Your task to perform on an android device: Search for vegetarian restaurants on Maps Image 0: 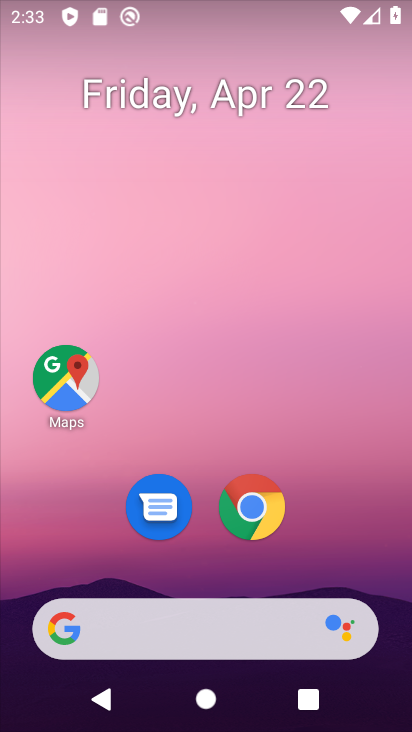
Step 0: drag from (118, 598) to (222, 46)
Your task to perform on an android device: Search for vegetarian restaurants on Maps Image 1: 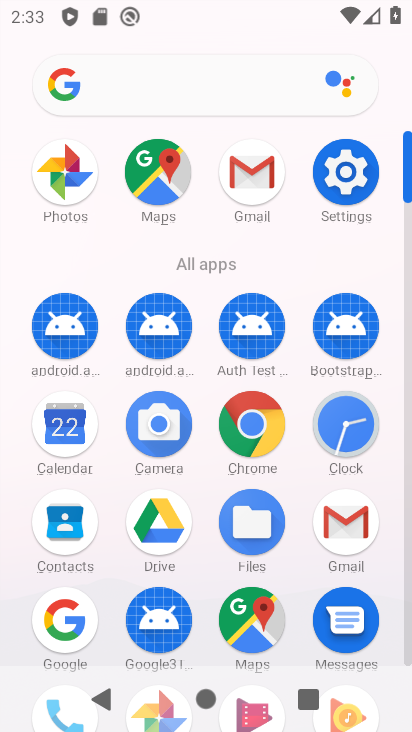
Step 1: click (270, 623)
Your task to perform on an android device: Search for vegetarian restaurants on Maps Image 2: 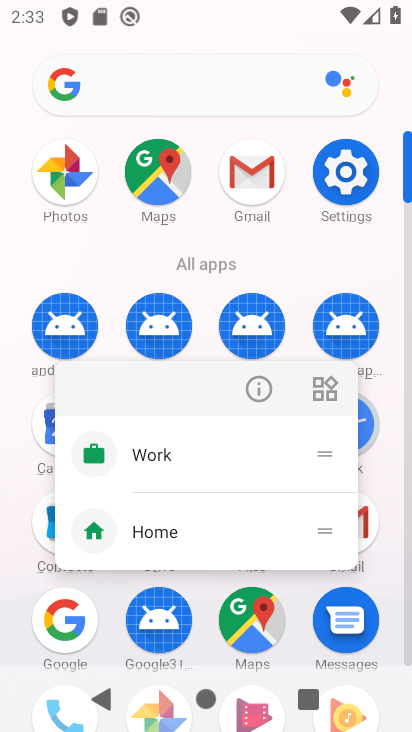
Step 2: click (232, 626)
Your task to perform on an android device: Search for vegetarian restaurants on Maps Image 3: 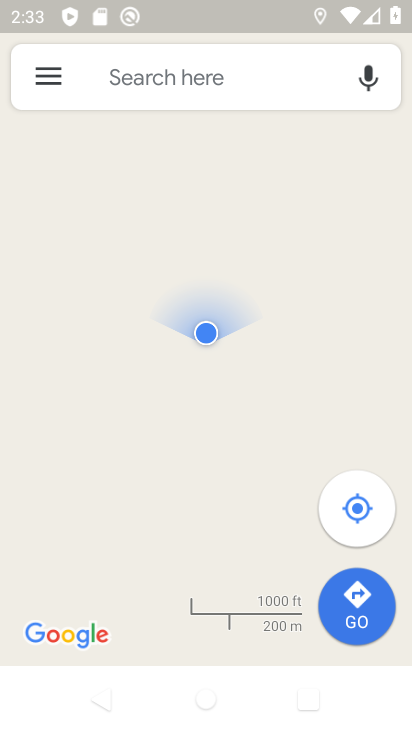
Step 3: click (151, 93)
Your task to perform on an android device: Search for vegetarian restaurants on Maps Image 4: 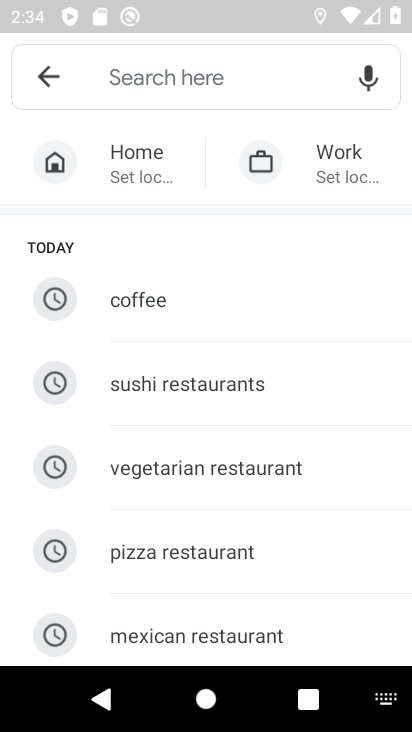
Step 4: type "vegetarian restaurants "
Your task to perform on an android device: Search for vegetarian restaurants on Maps Image 5: 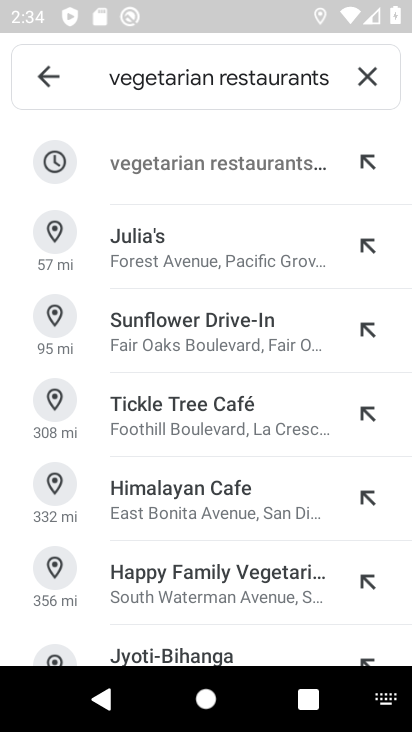
Step 5: click (181, 163)
Your task to perform on an android device: Search for vegetarian restaurants on Maps Image 6: 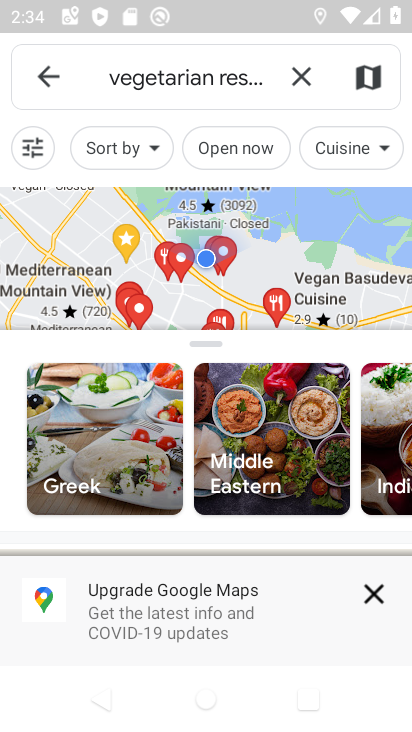
Step 6: click (375, 600)
Your task to perform on an android device: Search for vegetarian restaurants on Maps Image 7: 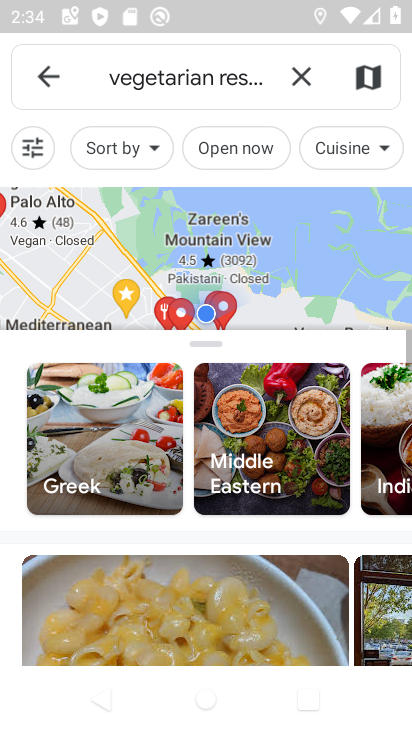
Step 7: task complete